Your task to perform on an android device: Open ESPN.com Image 0: 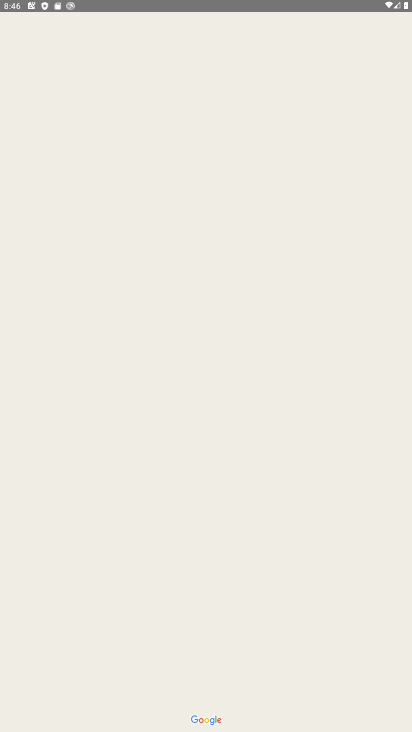
Step 0: press home button
Your task to perform on an android device: Open ESPN.com Image 1: 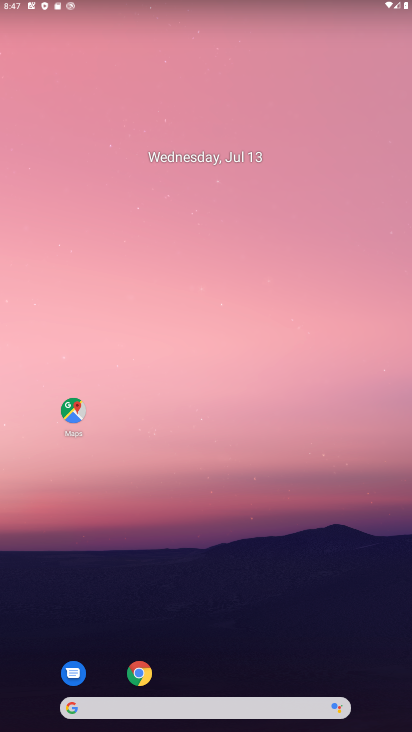
Step 1: click (140, 673)
Your task to perform on an android device: Open ESPN.com Image 2: 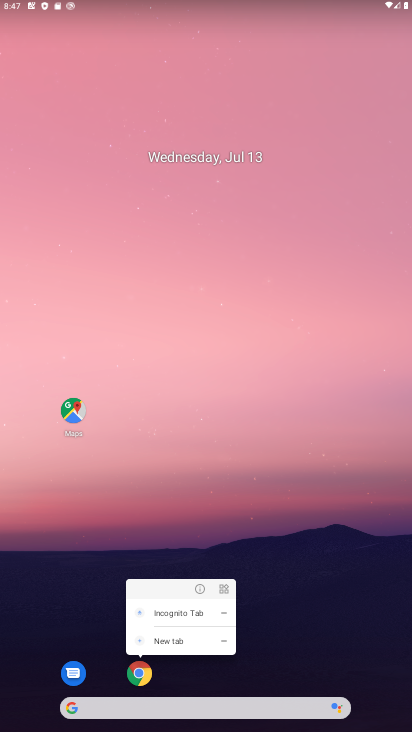
Step 2: click (142, 676)
Your task to perform on an android device: Open ESPN.com Image 3: 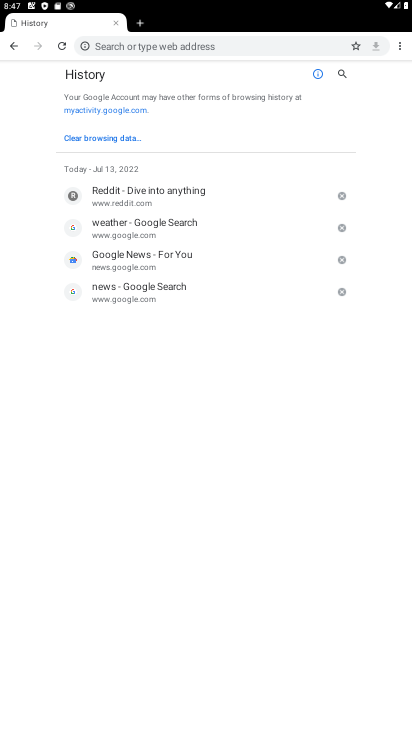
Step 3: click (263, 42)
Your task to perform on an android device: Open ESPN.com Image 4: 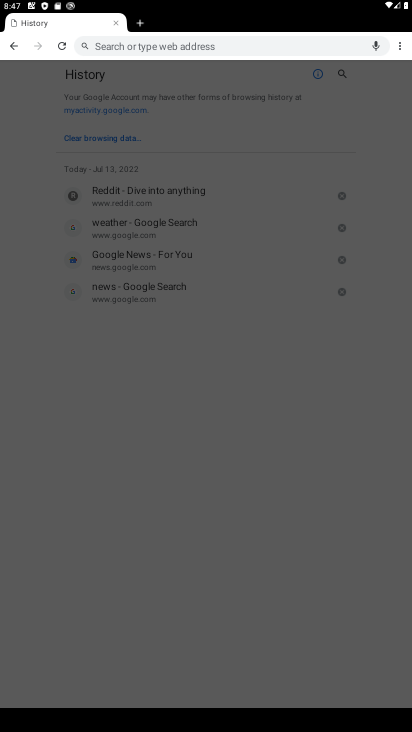
Step 4: type "espn.com"
Your task to perform on an android device: Open ESPN.com Image 5: 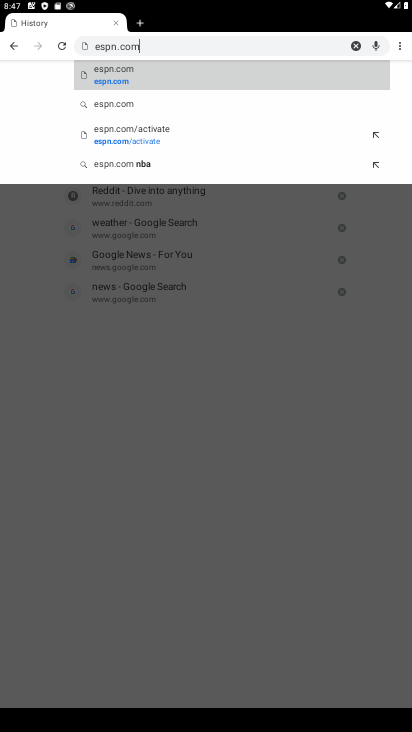
Step 5: click (121, 74)
Your task to perform on an android device: Open ESPN.com Image 6: 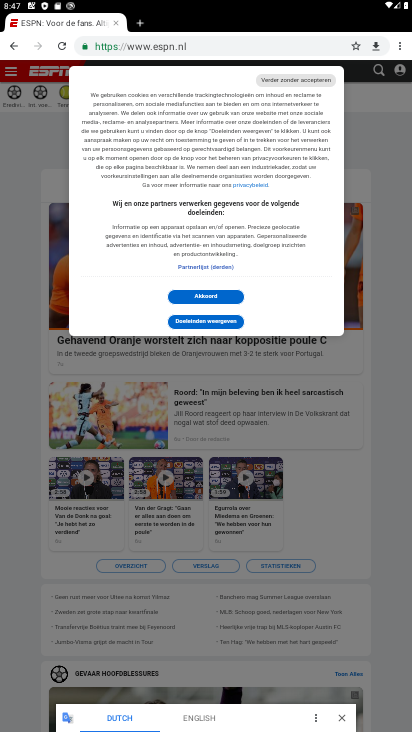
Step 6: task complete